Your task to perform on an android device: change alarm snooze length Image 0: 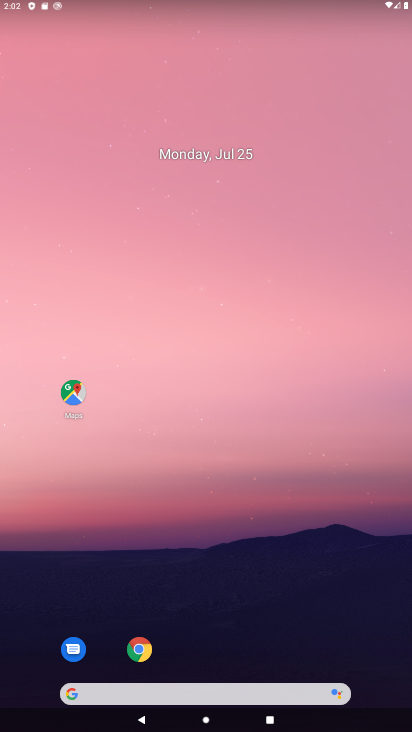
Step 0: drag from (230, 585) to (199, 4)
Your task to perform on an android device: change alarm snooze length Image 1: 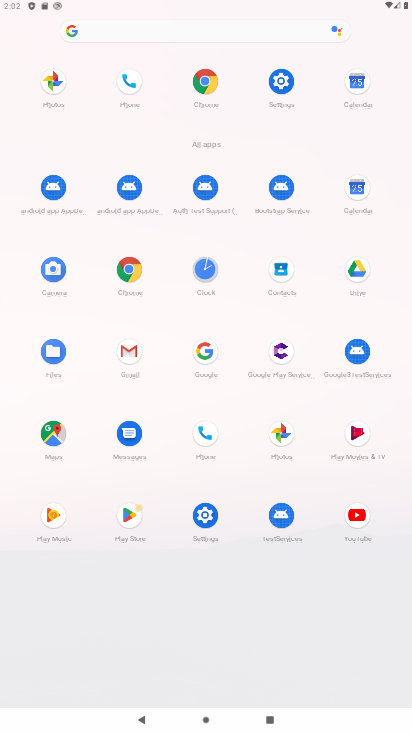
Step 1: click (285, 90)
Your task to perform on an android device: change alarm snooze length Image 2: 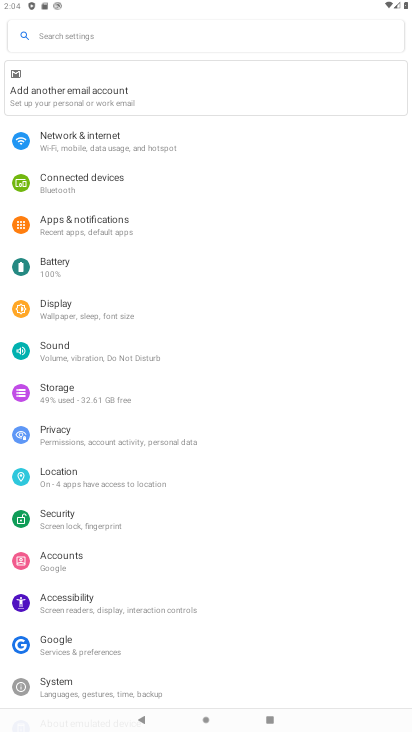
Step 2: press home button
Your task to perform on an android device: change alarm snooze length Image 3: 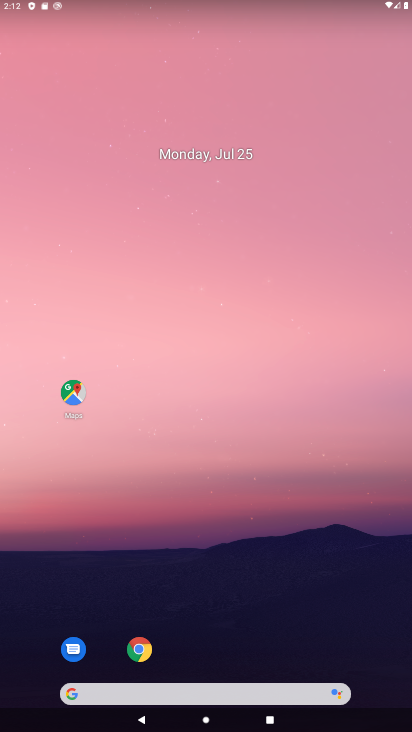
Step 3: drag from (190, 482) to (169, 38)
Your task to perform on an android device: change alarm snooze length Image 4: 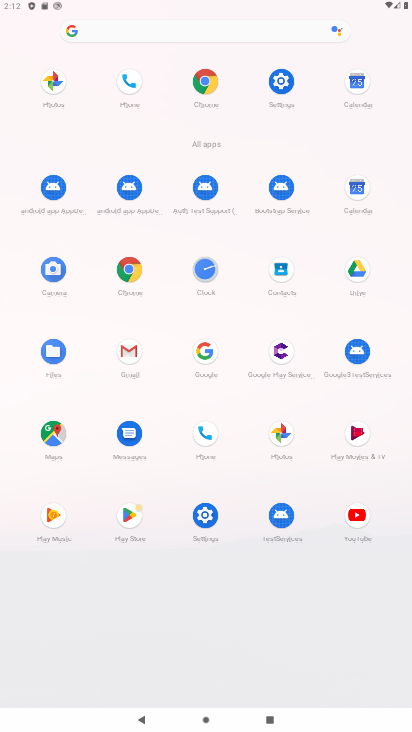
Step 4: click (193, 278)
Your task to perform on an android device: change alarm snooze length Image 5: 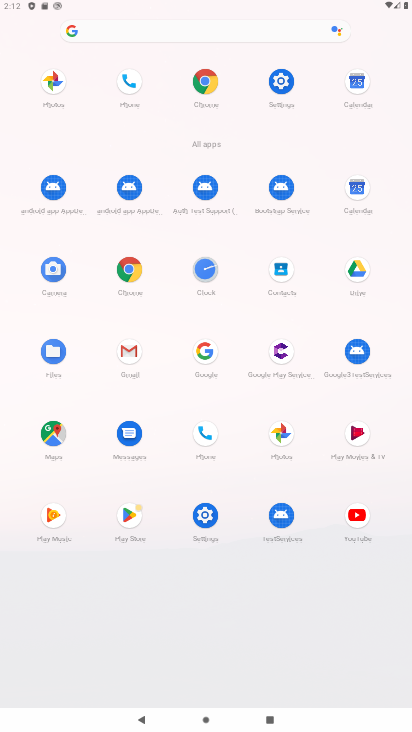
Step 5: click (193, 278)
Your task to perform on an android device: change alarm snooze length Image 6: 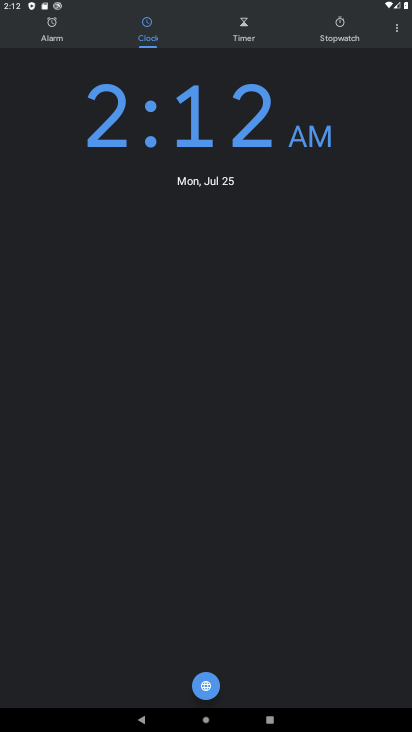
Step 6: click (401, 30)
Your task to perform on an android device: change alarm snooze length Image 7: 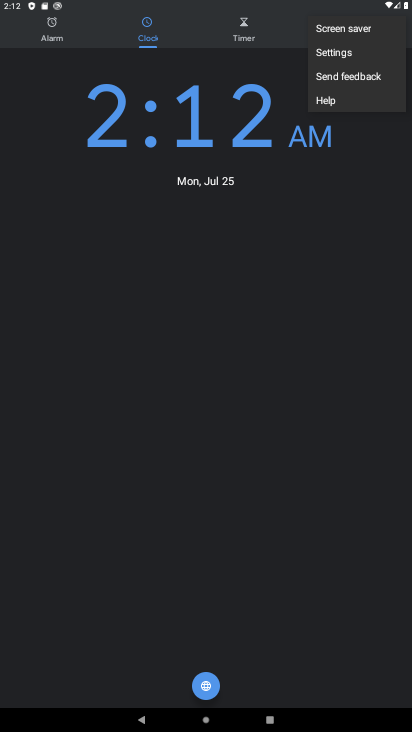
Step 7: click (337, 56)
Your task to perform on an android device: change alarm snooze length Image 8: 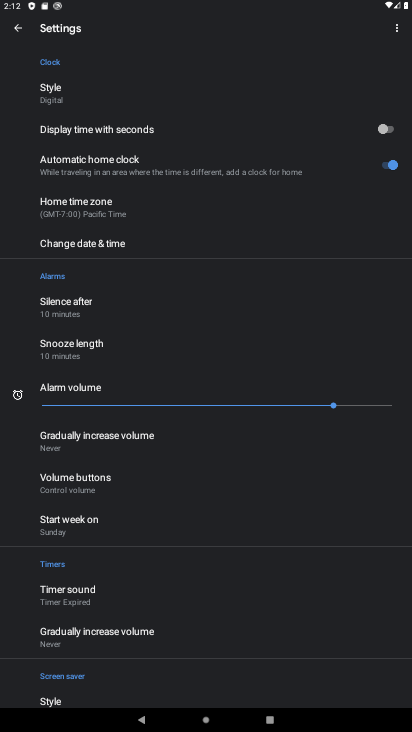
Step 8: click (76, 354)
Your task to perform on an android device: change alarm snooze length Image 9: 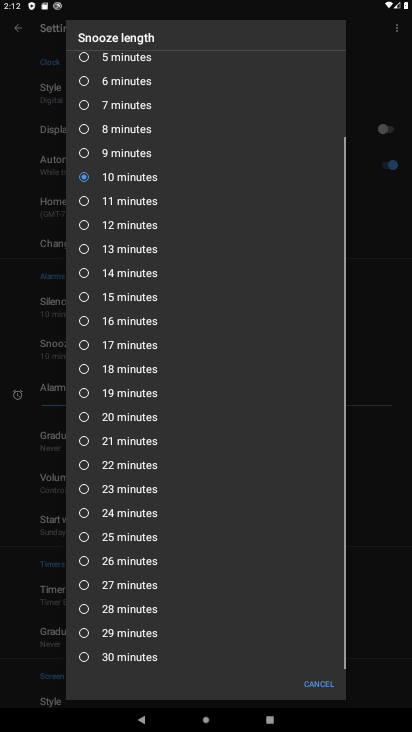
Step 9: click (174, 286)
Your task to perform on an android device: change alarm snooze length Image 10: 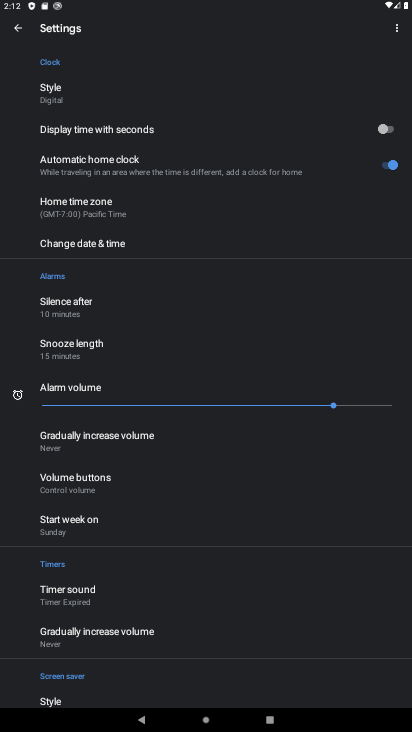
Step 10: task complete